Your task to perform on an android device: Search for vegetarian restaurants on Maps Image 0: 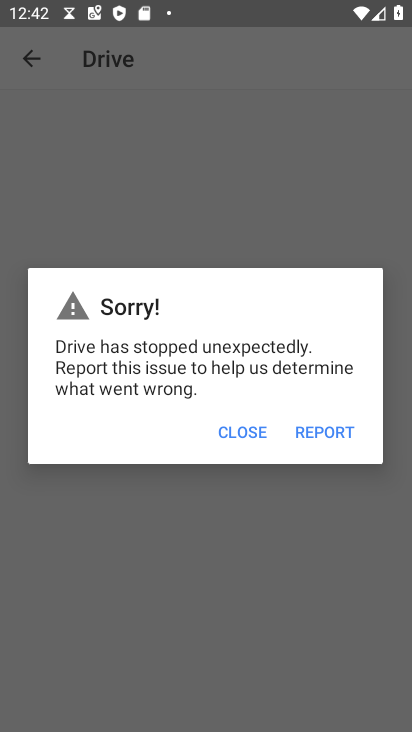
Step 0: press home button
Your task to perform on an android device: Search for vegetarian restaurants on Maps Image 1: 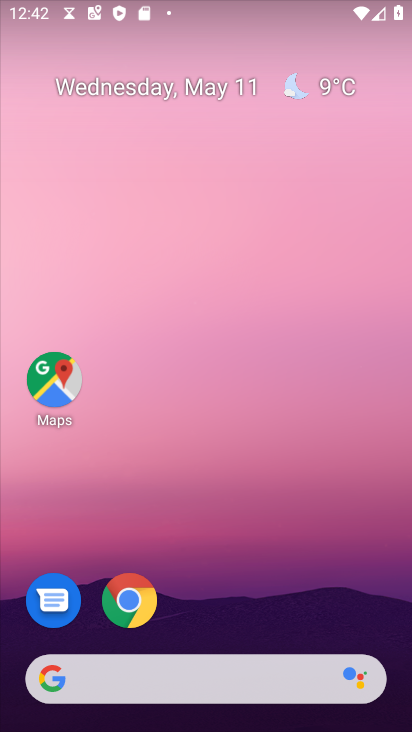
Step 1: drag from (273, 601) to (238, 130)
Your task to perform on an android device: Search for vegetarian restaurants on Maps Image 2: 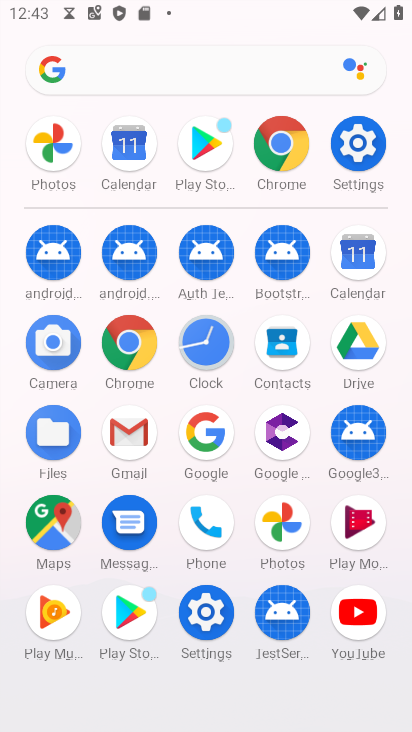
Step 2: click (57, 524)
Your task to perform on an android device: Search for vegetarian restaurants on Maps Image 3: 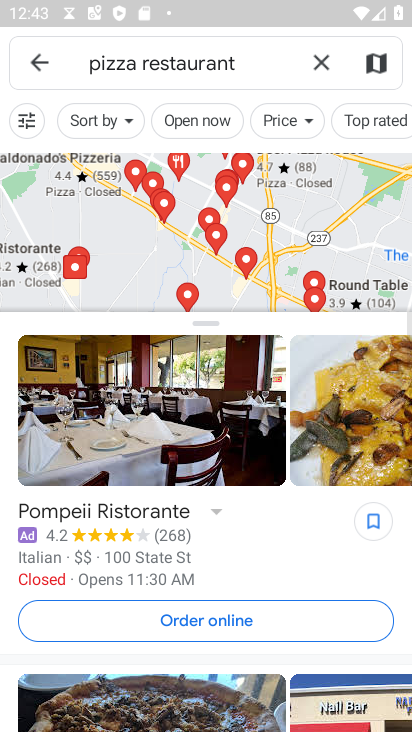
Step 3: click (331, 61)
Your task to perform on an android device: Search for vegetarian restaurants on Maps Image 4: 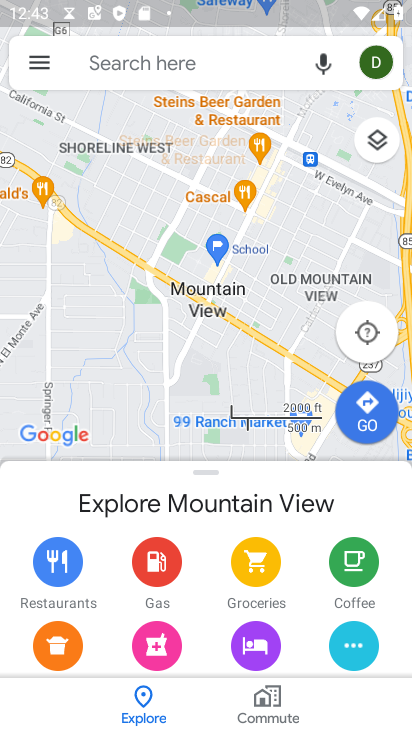
Step 4: click (183, 59)
Your task to perform on an android device: Search for vegetarian restaurants on Maps Image 5: 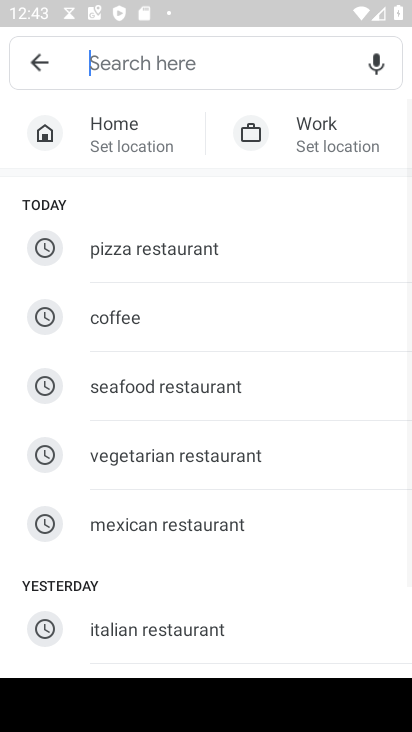
Step 5: click (227, 452)
Your task to perform on an android device: Search for vegetarian restaurants on Maps Image 6: 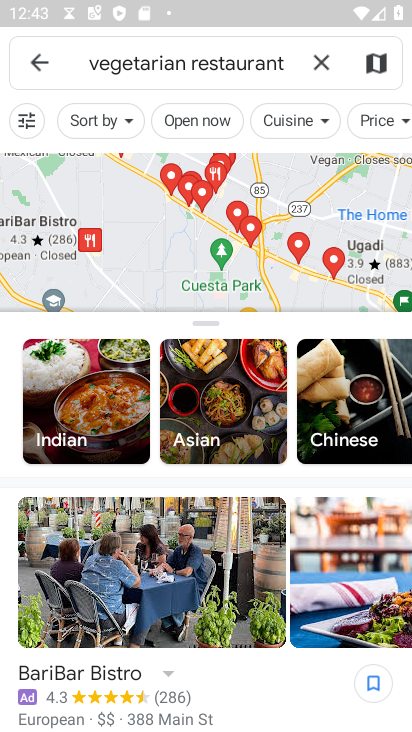
Step 6: task complete